Your task to perform on an android device: Open eBay Image 0: 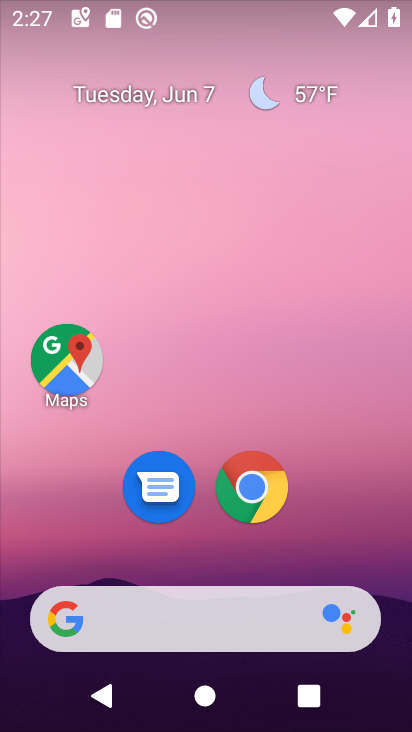
Step 0: drag from (228, 561) to (221, 25)
Your task to perform on an android device: Open eBay Image 1: 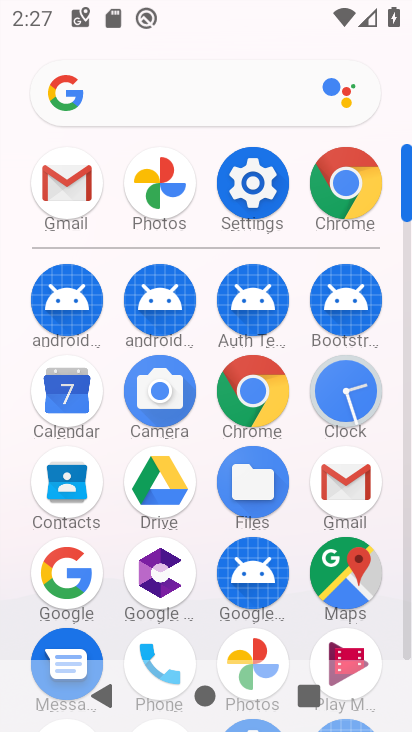
Step 1: click (258, 400)
Your task to perform on an android device: Open eBay Image 2: 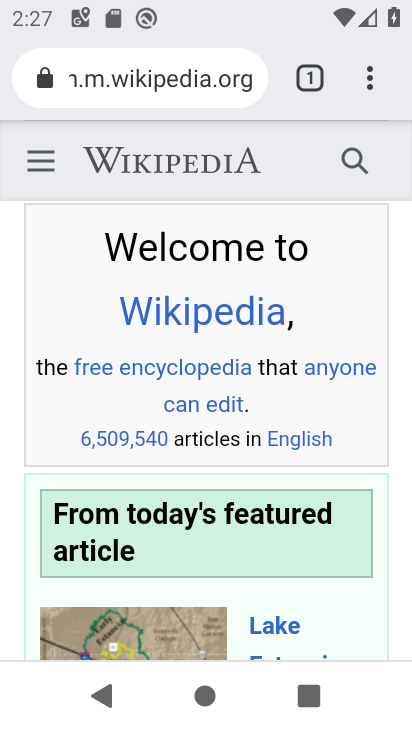
Step 2: click (308, 71)
Your task to perform on an android device: Open eBay Image 3: 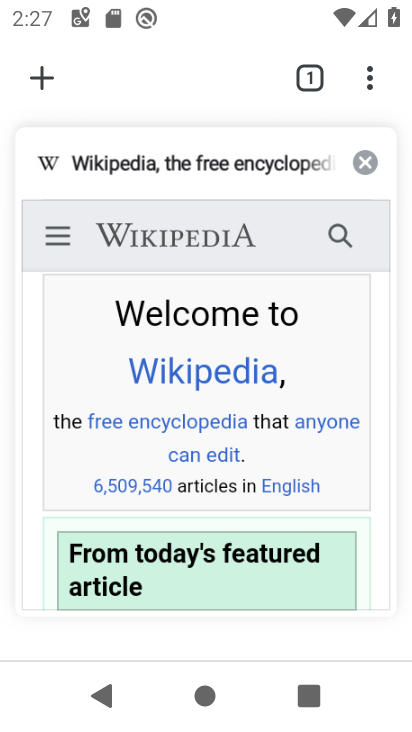
Step 3: click (51, 80)
Your task to perform on an android device: Open eBay Image 4: 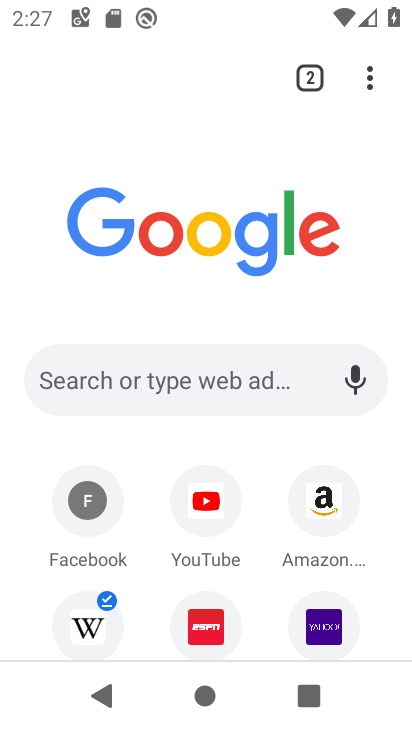
Step 4: click (182, 378)
Your task to perform on an android device: Open eBay Image 5: 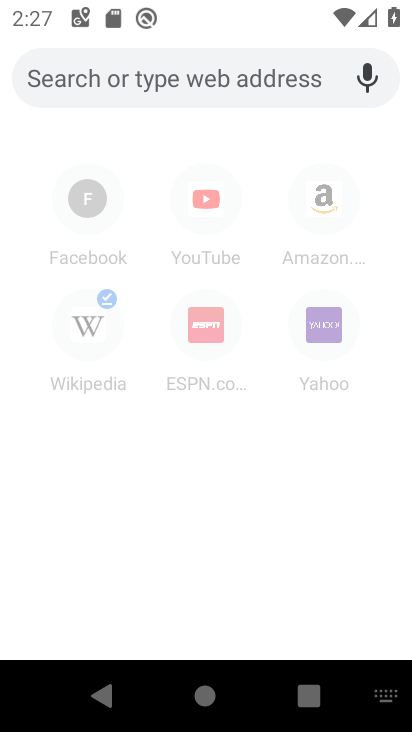
Step 5: type "ebay"
Your task to perform on an android device: Open eBay Image 6: 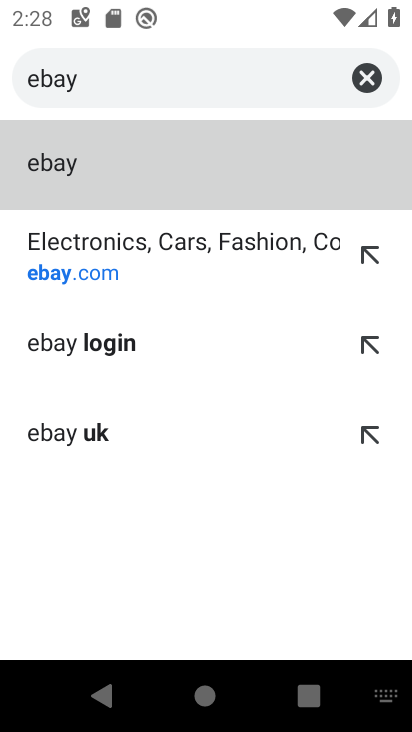
Step 6: click (119, 292)
Your task to perform on an android device: Open eBay Image 7: 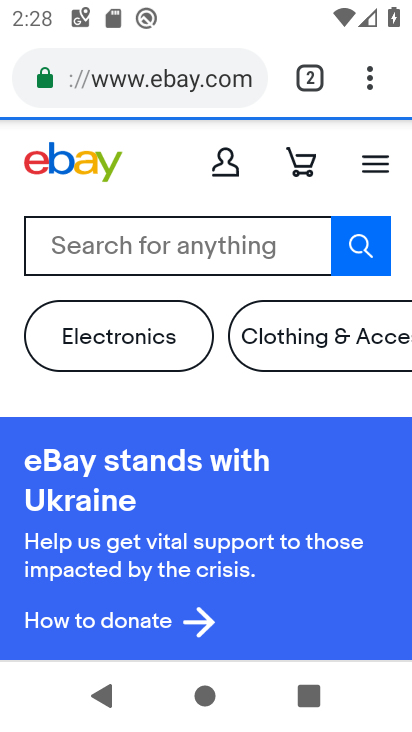
Step 7: task complete